Your task to perform on an android device: Open Chrome and go to settings Image 0: 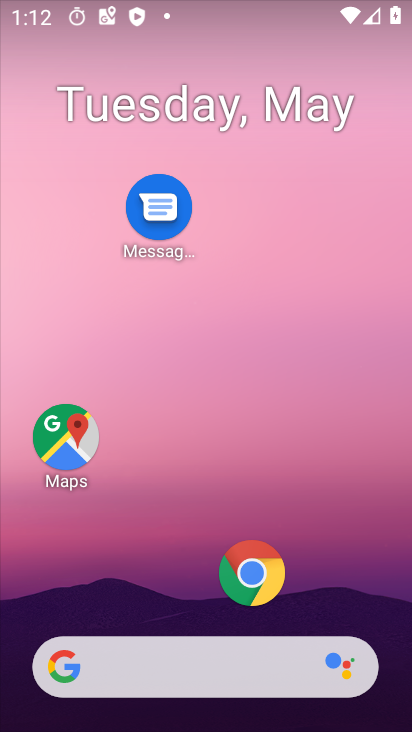
Step 0: click (246, 578)
Your task to perform on an android device: Open Chrome and go to settings Image 1: 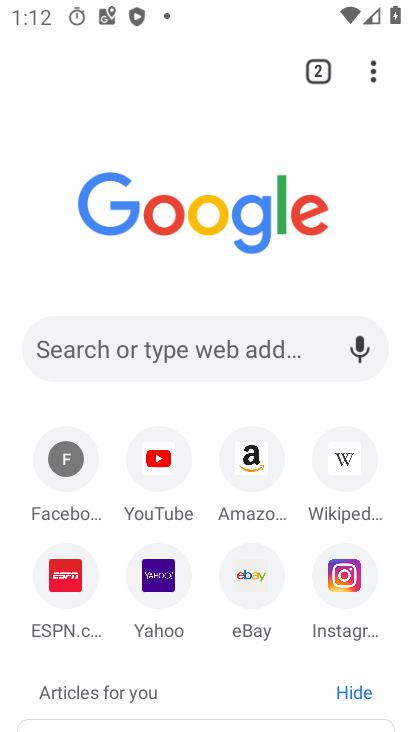
Step 1: click (378, 86)
Your task to perform on an android device: Open Chrome and go to settings Image 2: 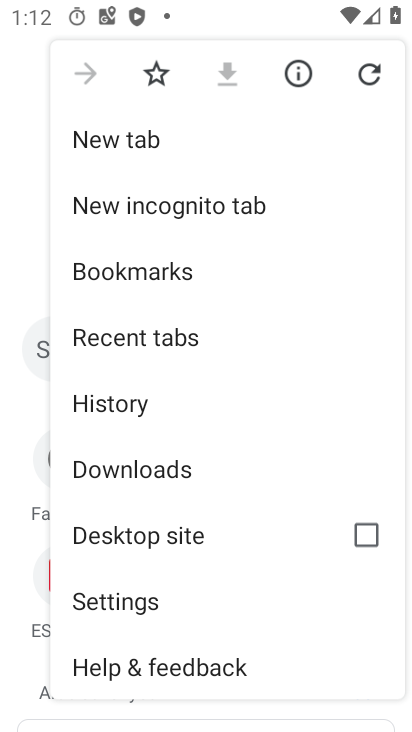
Step 2: click (157, 597)
Your task to perform on an android device: Open Chrome and go to settings Image 3: 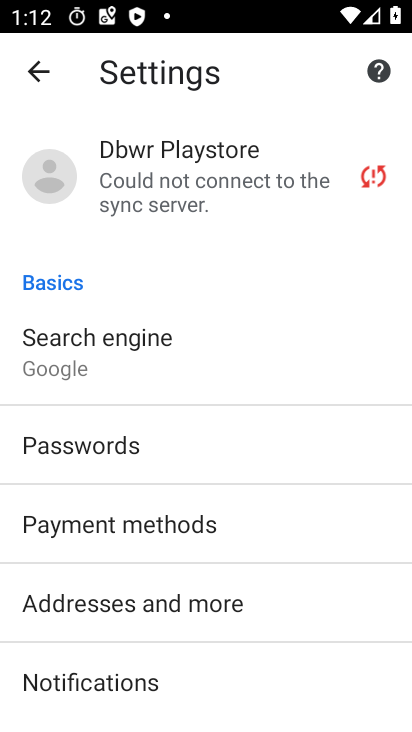
Step 3: task complete